Your task to perform on an android device: Find coffee shops on Maps Image 0: 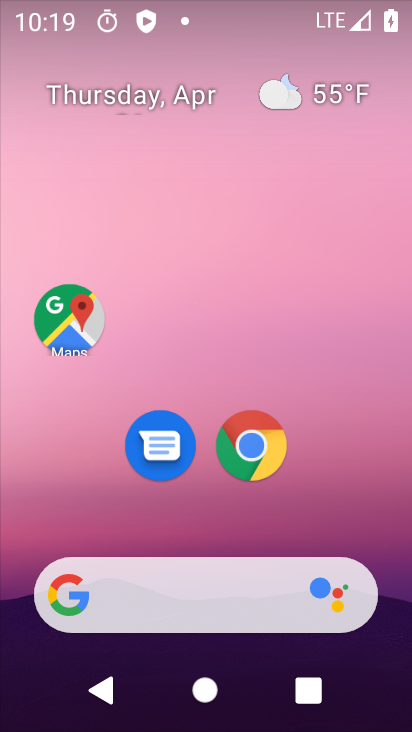
Step 0: click (70, 323)
Your task to perform on an android device: Find coffee shops on Maps Image 1: 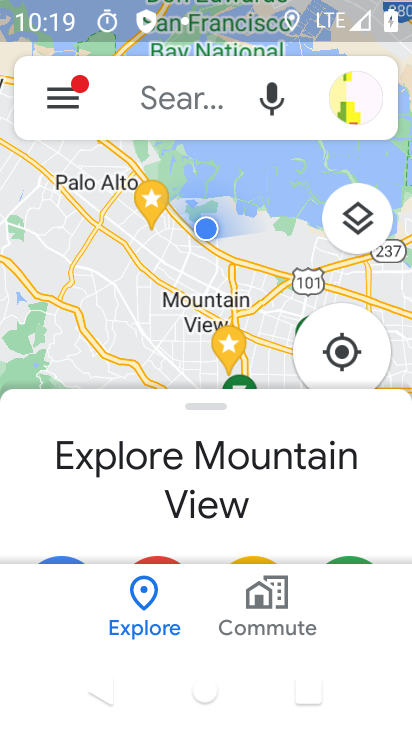
Step 1: click (149, 91)
Your task to perform on an android device: Find coffee shops on Maps Image 2: 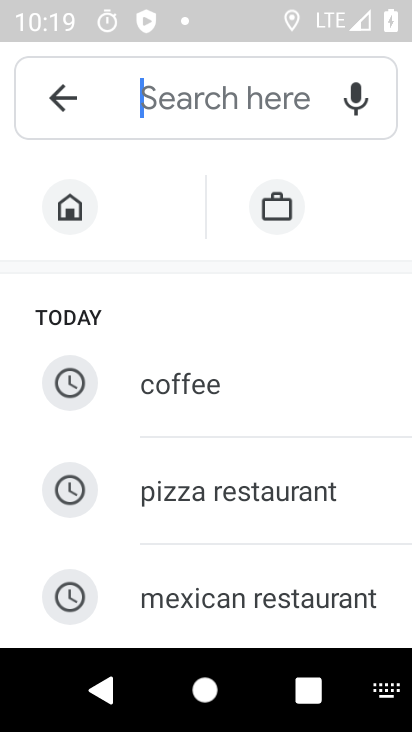
Step 2: type "coffee shops"
Your task to perform on an android device: Find coffee shops on Maps Image 3: 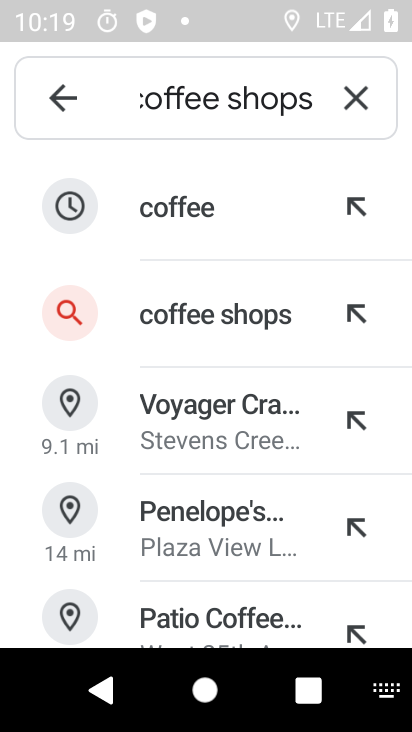
Step 3: click (188, 313)
Your task to perform on an android device: Find coffee shops on Maps Image 4: 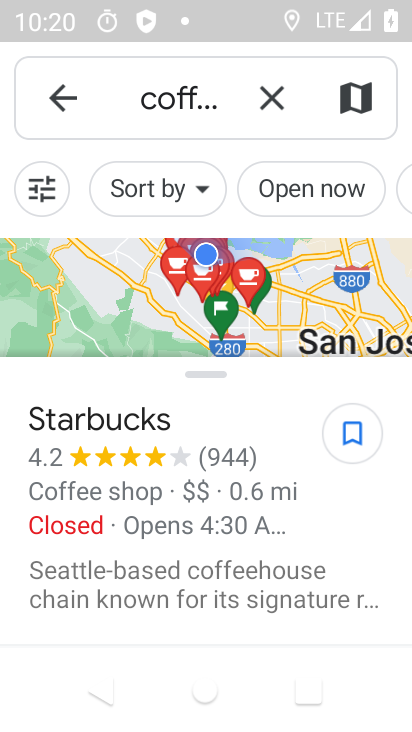
Step 4: task complete